Your task to perform on an android device: Go to battery settings Image 0: 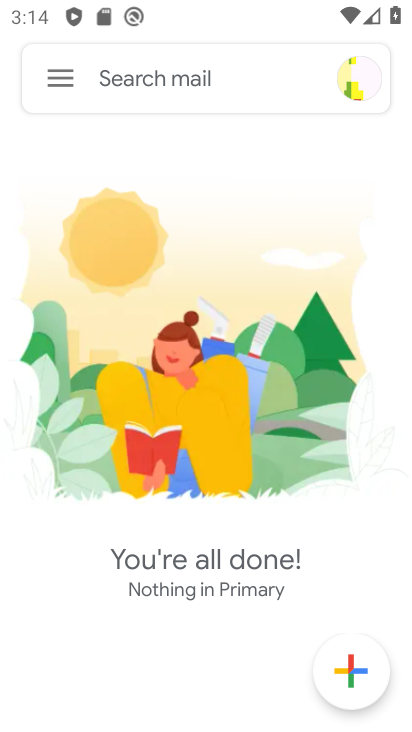
Step 0: press home button
Your task to perform on an android device: Go to battery settings Image 1: 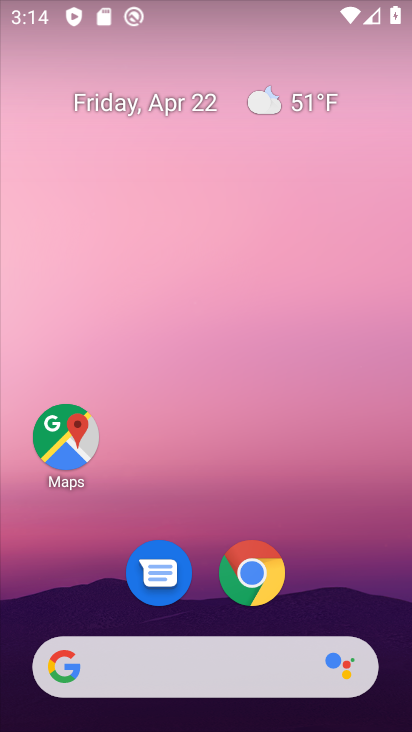
Step 1: drag from (345, 584) to (326, 56)
Your task to perform on an android device: Go to battery settings Image 2: 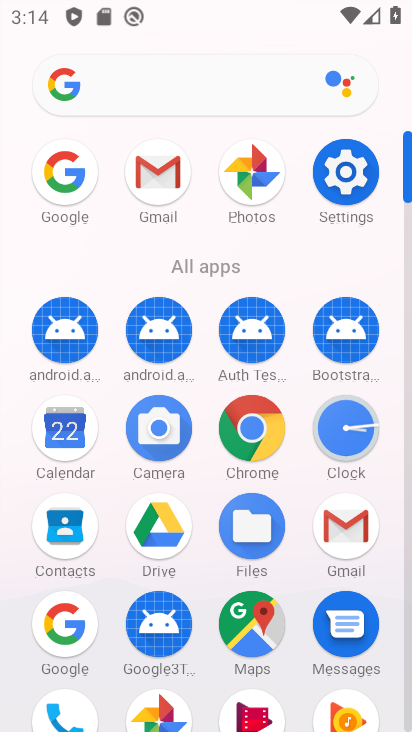
Step 2: click (342, 158)
Your task to perform on an android device: Go to battery settings Image 3: 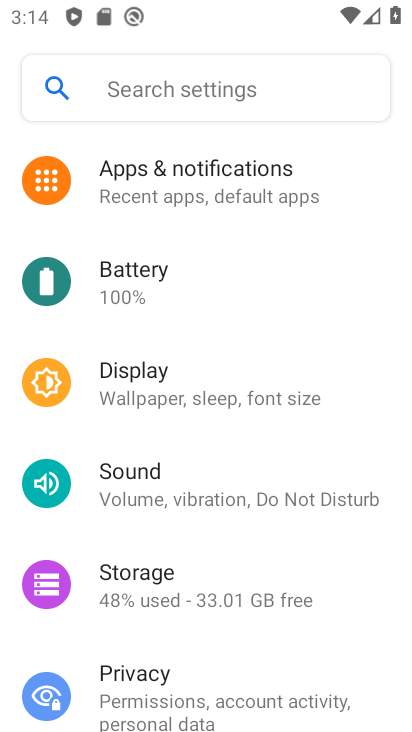
Step 3: click (131, 286)
Your task to perform on an android device: Go to battery settings Image 4: 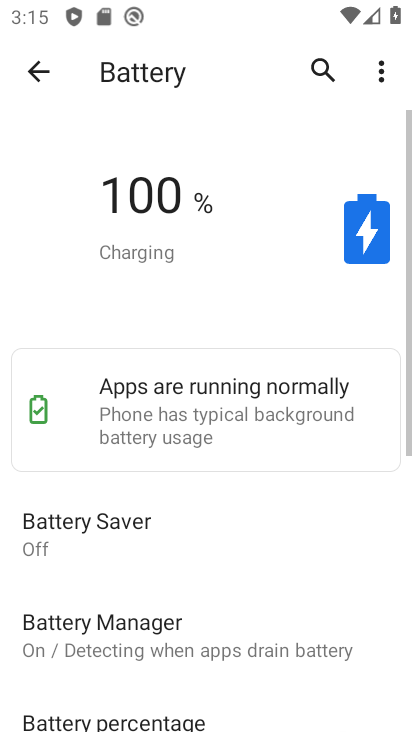
Step 4: task complete